Your task to perform on an android device: Play the last video I watched on Youtube Image 0: 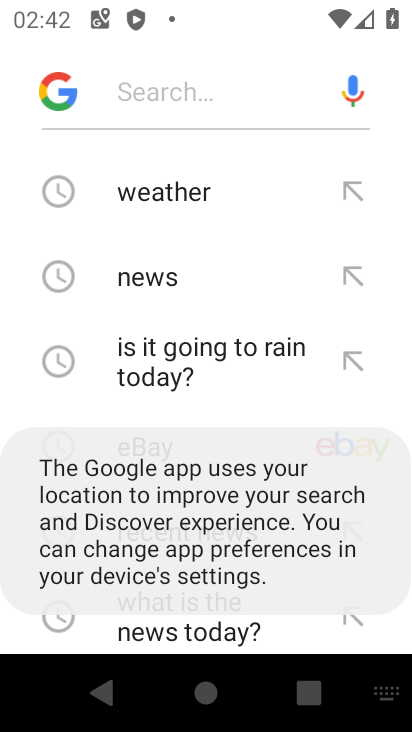
Step 0: press home button
Your task to perform on an android device: Play the last video I watched on Youtube Image 1: 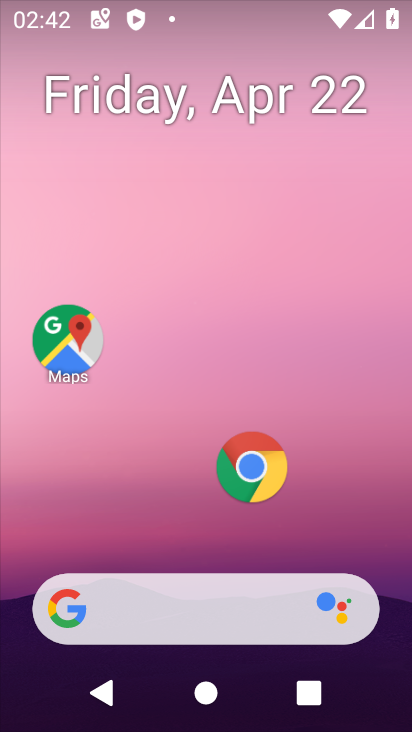
Step 1: drag from (202, 553) to (244, 127)
Your task to perform on an android device: Play the last video I watched on Youtube Image 2: 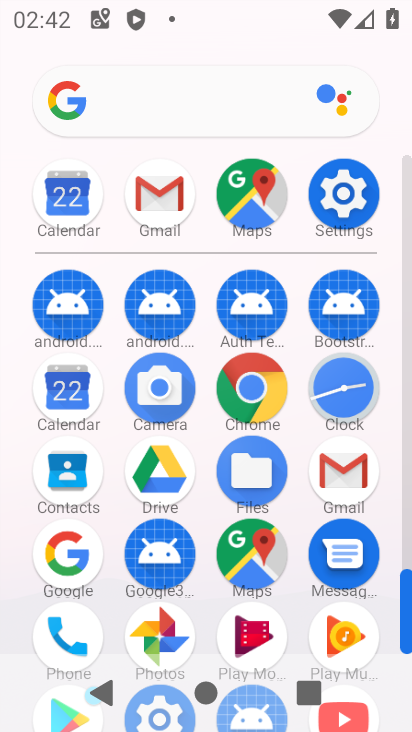
Step 2: click (330, 726)
Your task to perform on an android device: Play the last video I watched on Youtube Image 3: 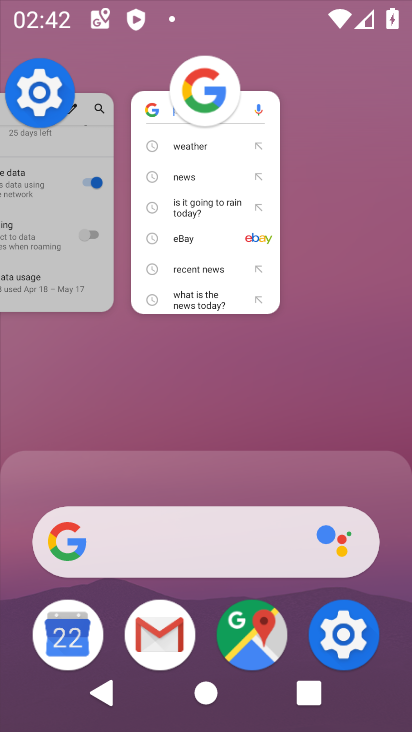
Step 3: click (359, 355)
Your task to perform on an android device: Play the last video I watched on Youtube Image 4: 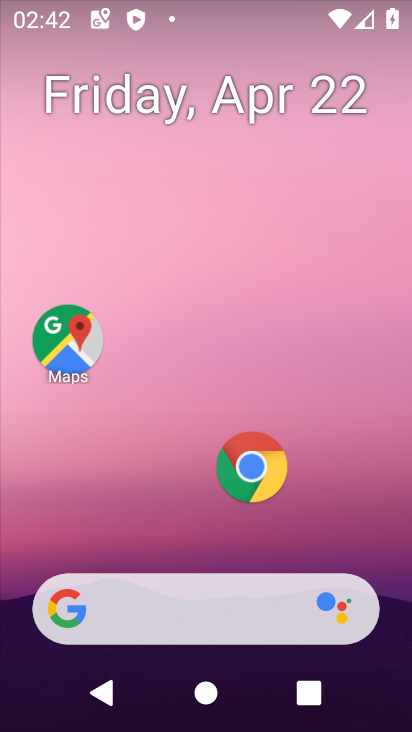
Step 4: drag from (290, 493) to (304, 142)
Your task to perform on an android device: Play the last video I watched on Youtube Image 5: 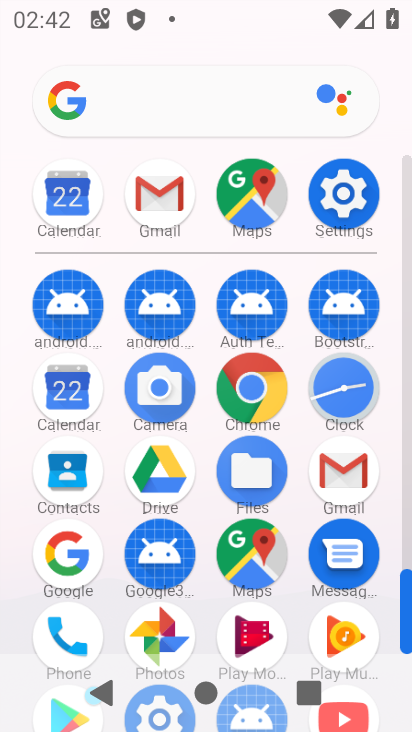
Step 5: drag from (390, 663) to (410, 432)
Your task to perform on an android device: Play the last video I watched on Youtube Image 6: 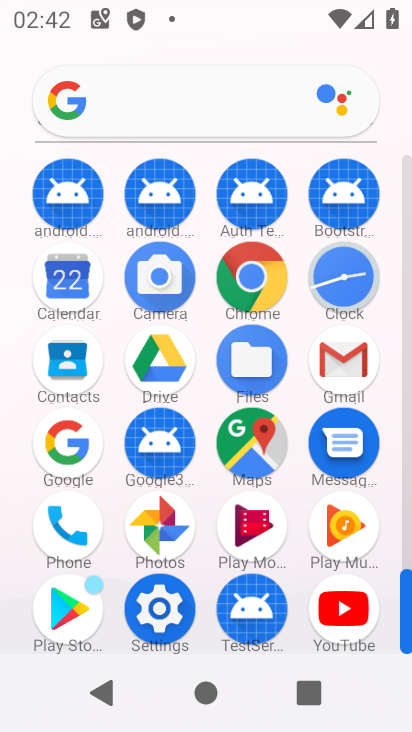
Step 6: click (353, 640)
Your task to perform on an android device: Play the last video I watched on Youtube Image 7: 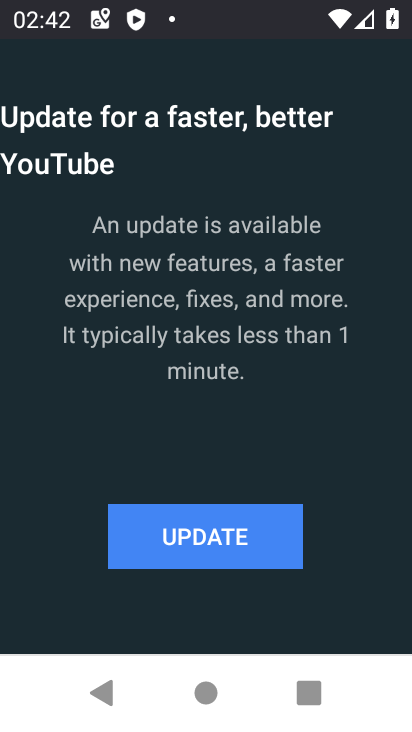
Step 7: click (252, 559)
Your task to perform on an android device: Play the last video I watched on Youtube Image 8: 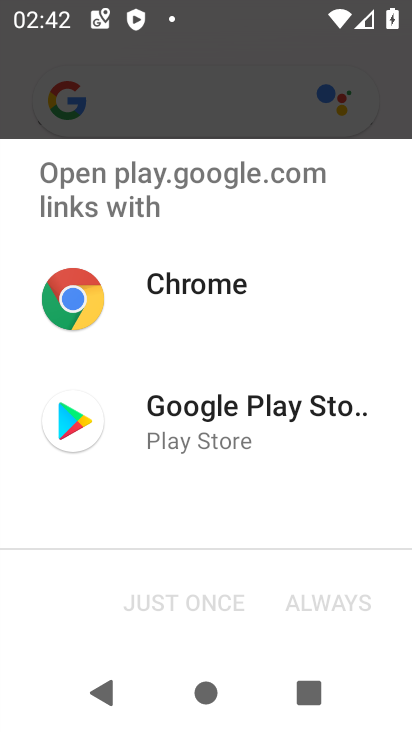
Step 8: click (193, 419)
Your task to perform on an android device: Play the last video I watched on Youtube Image 9: 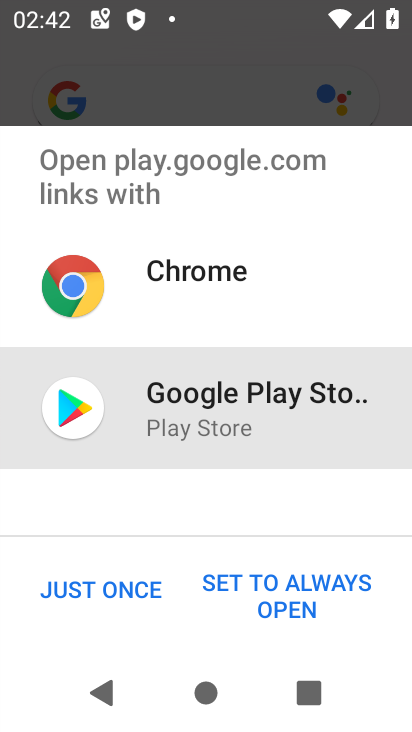
Step 9: click (134, 589)
Your task to perform on an android device: Play the last video I watched on Youtube Image 10: 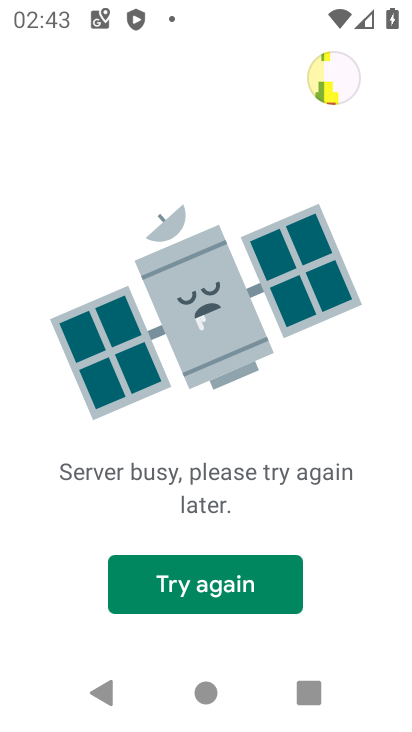
Step 10: task complete